Your task to perform on an android device: turn on the 12-hour format for clock Image 0: 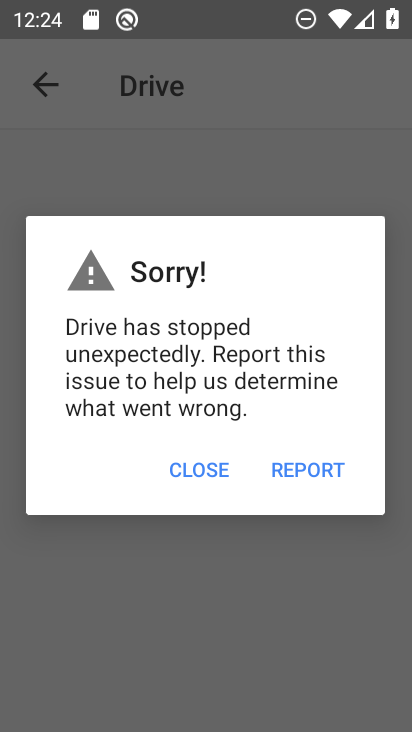
Step 0: press home button
Your task to perform on an android device: turn on the 12-hour format for clock Image 1: 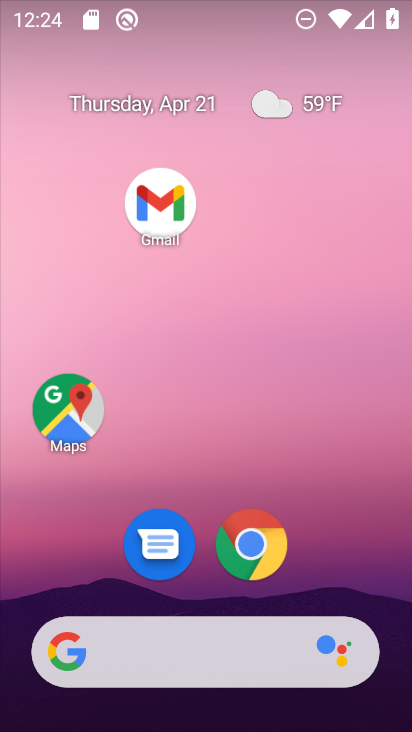
Step 1: drag from (287, 598) to (296, 125)
Your task to perform on an android device: turn on the 12-hour format for clock Image 2: 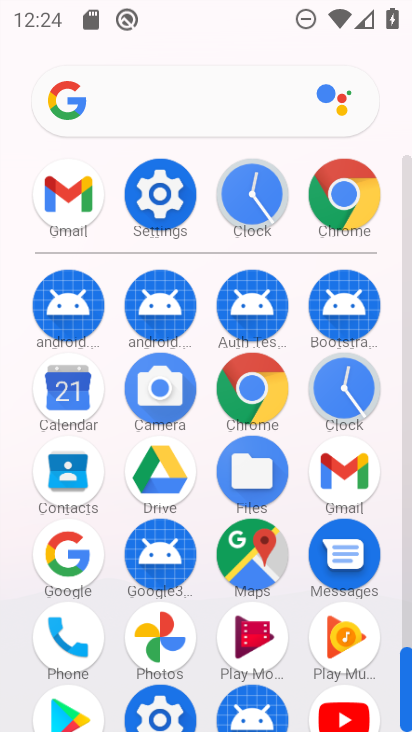
Step 2: click (347, 389)
Your task to perform on an android device: turn on the 12-hour format for clock Image 3: 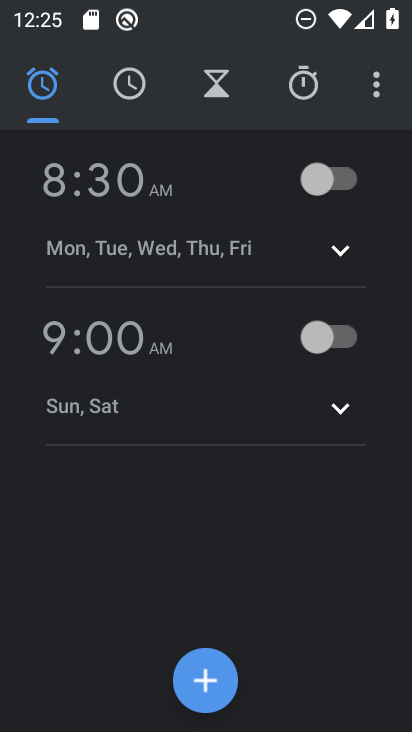
Step 3: click (383, 89)
Your task to perform on an android device: turn on the 12-hour format for clock Image 4: 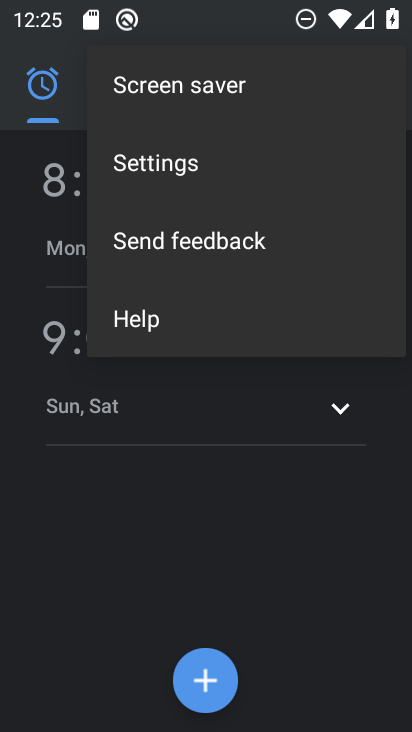
Step 4: click (209, 174)
Your task to perform on an android device: turn on the 12-hour format for clock Image 5: 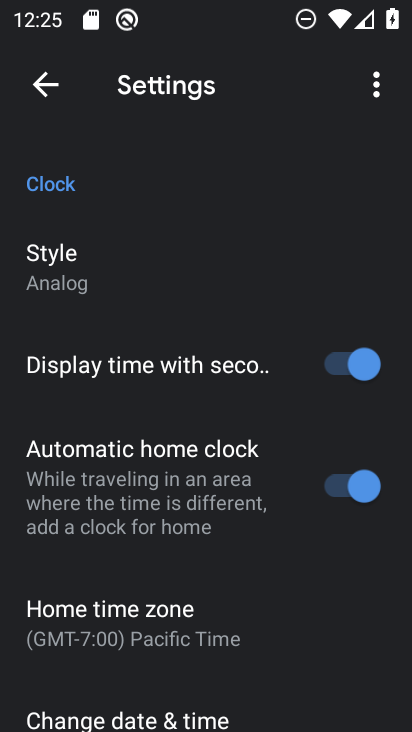
Step 5: drag from (207, 618) to (215, 170)
Your task to perform on an android device: turn on the 12-hour format for clock Image 6: 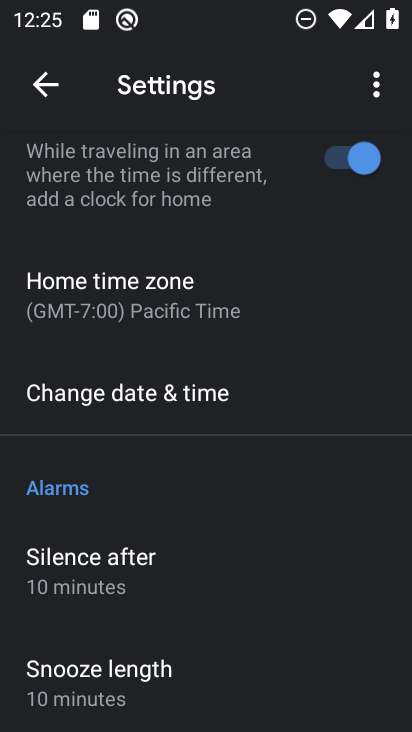
Step 6: click (227, 389)
Your task to perform on an android device: turn on the 12-hour format for clock Image 7: 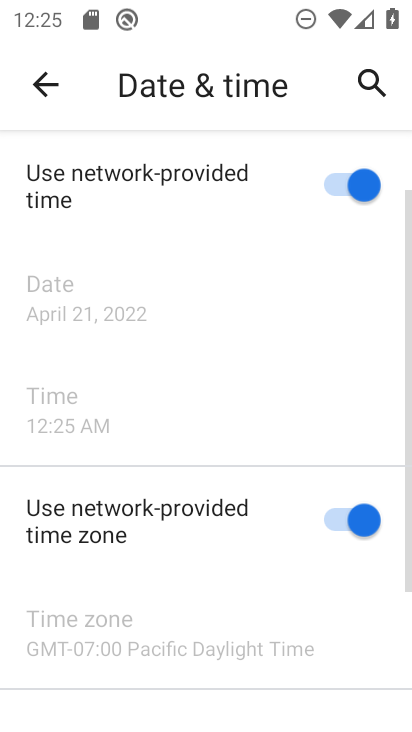
Step 7: drag from (227, 609) to (206, 121)
Your task to perform on an android device: turn on the 12-hour format for clock Image 8: 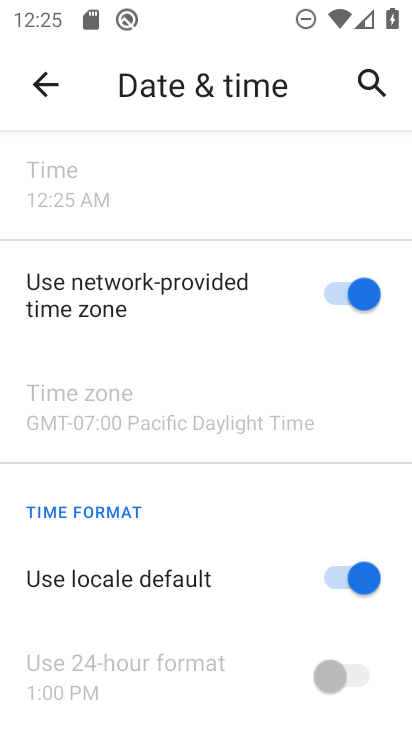
Step 8: drag from (257, 627) to (329, 131)
Your task to perform on an android device: turn on the 12-hour format for clock Image 9: 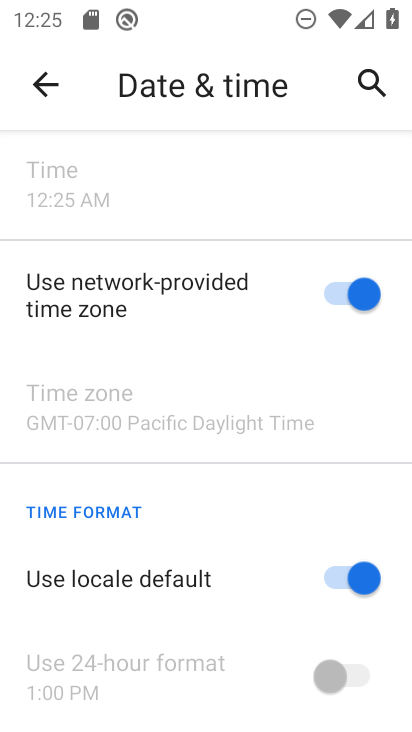
Step 9: click (377, 581)
Your task to perform on an android device: turn on the 12-hour format for clock Image 10: 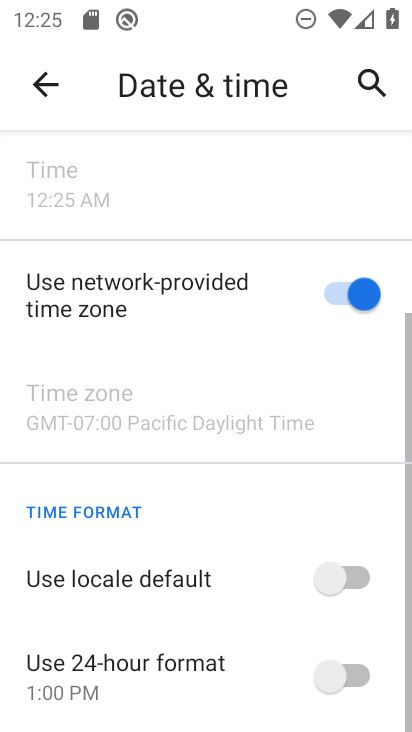
Step 10: click (327, 684)
Your task to perform on an android device: turn on the 12-hour format for clock Image 11: 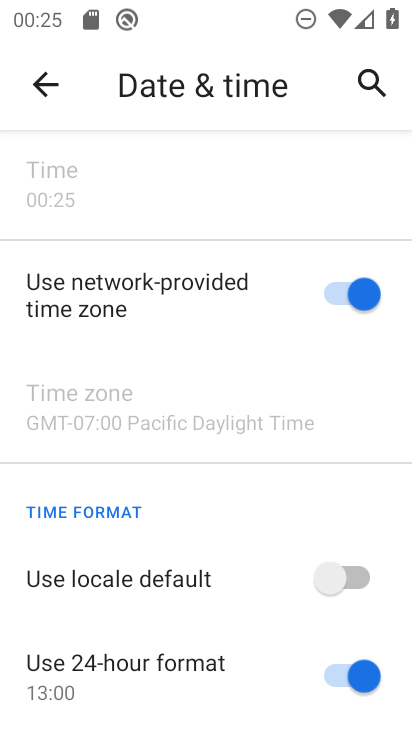
Step 11: click (339, 666)
Your task to perform on an android device: turn on the 12-hour format for clock Image 12: 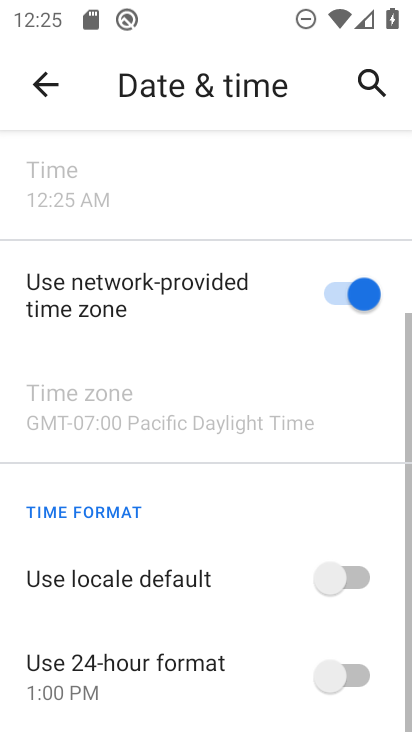
Step 12: click (340, 587)
Your task to perform on an android device: turn on the 12-hour format for clock Image 13: 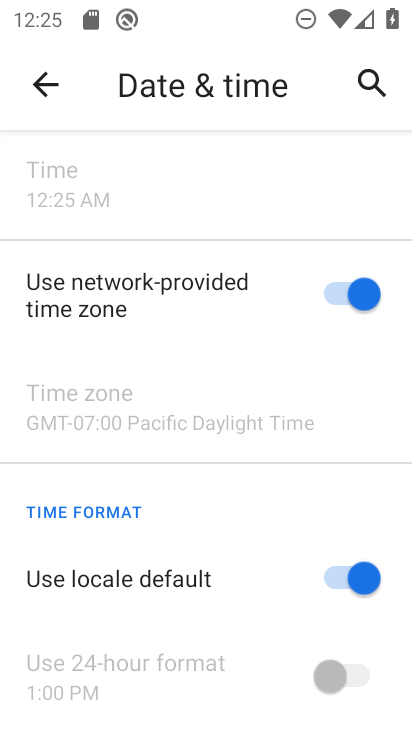
Step 13: task complete